Your task to perform on an android device: Go to notification settings Image 0: 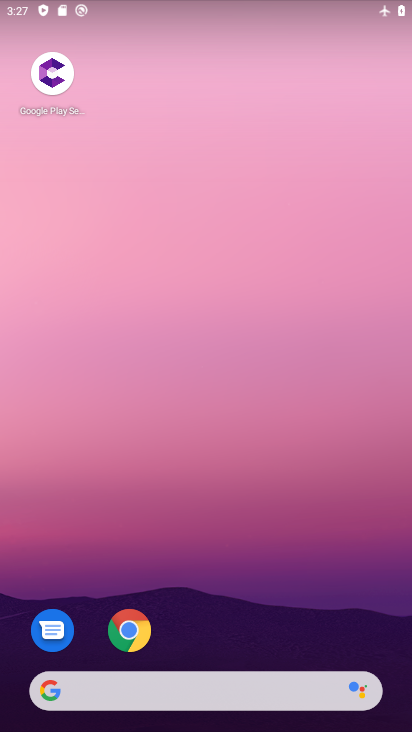
Step 0: drag from (227, 612) to (260, 146)
Your task to perform on an android device: Go to notification settings Image 1: 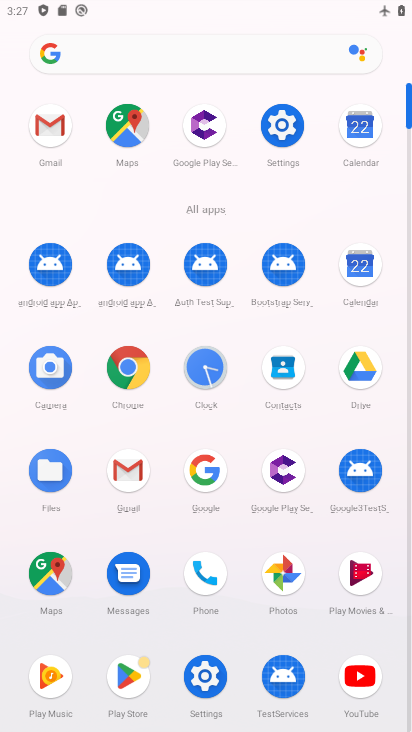
Step 1: click (211, 669)
Your task to perform on an android device: Go to notification settings Image 2: 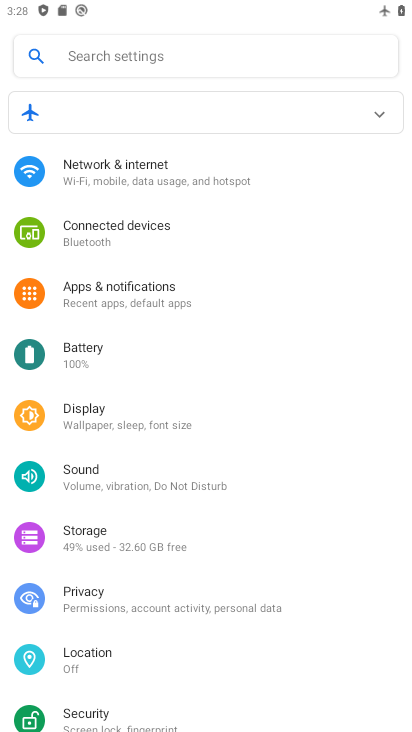
Step 2: click (167, 296)
Your task to perform on an android device: Go to notification settings Image 3: 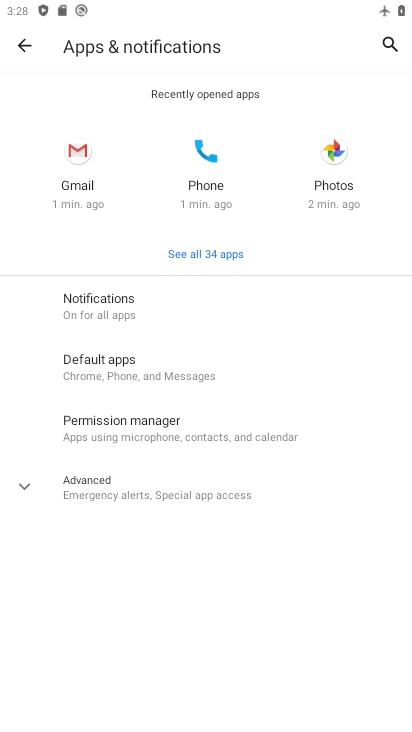
Step 3: click (121, 305)
Your task to perform on an android device: Go to notification settings Image 4: 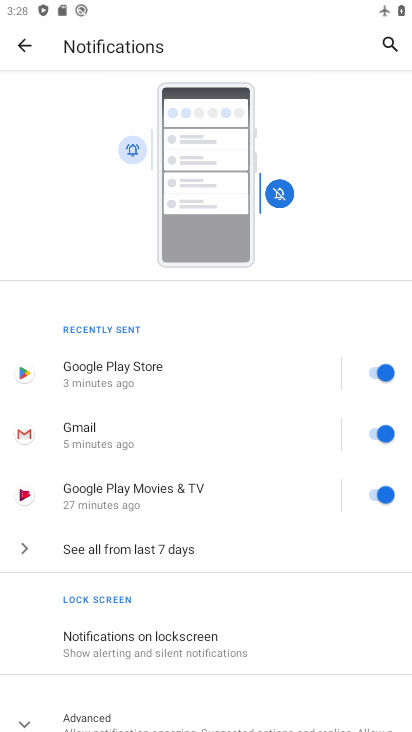
Step 4: task complete